Your task to perform on an android device: turn off smart reply in the gmail app Image 0: 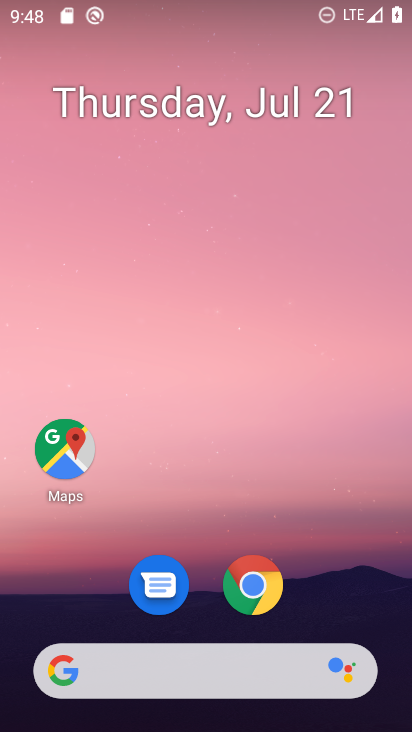
Step 0: drag from (345, 592) to (371, 51)
Your task to perform on an android device: turn off smart reply in the gmail app Image 1: 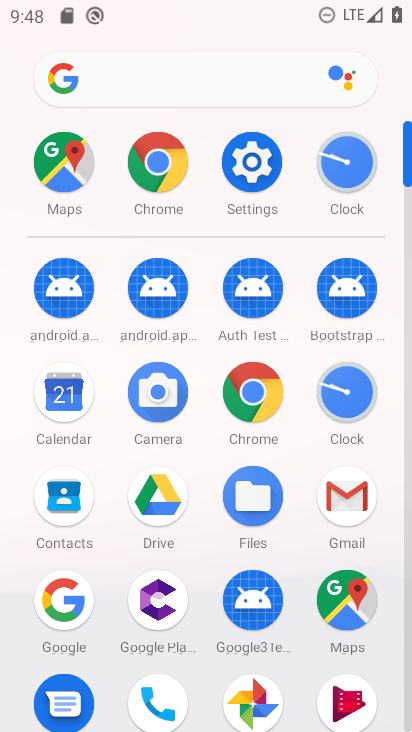
Step 1: click (343, 496)
Your task to perform on an android device: turn off smart reply in the gmail app Image 2: 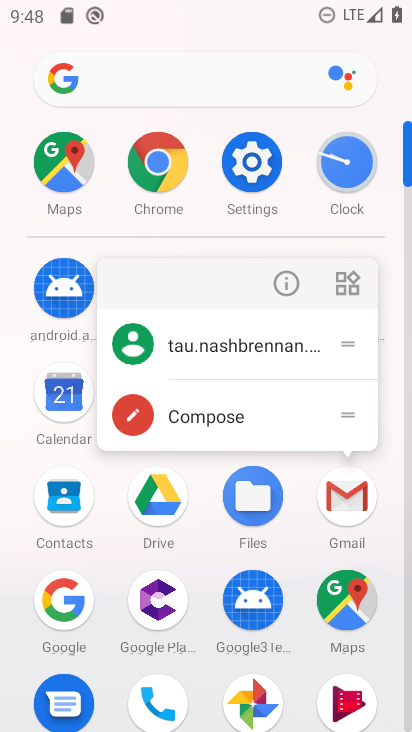
Step 2: click (343, 496)
Your task to perform on an android device: turn off smart reply in the gmail app Image 3: 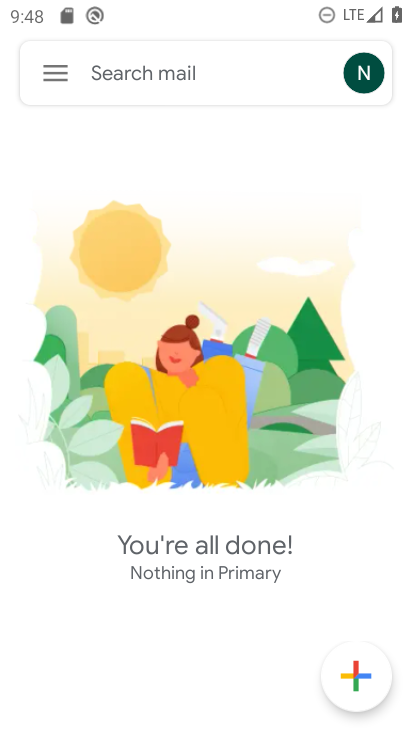
Step 3: click (59, 72)
Your task to perform on an android device: turn off smart reply in the gmail app Image 4: 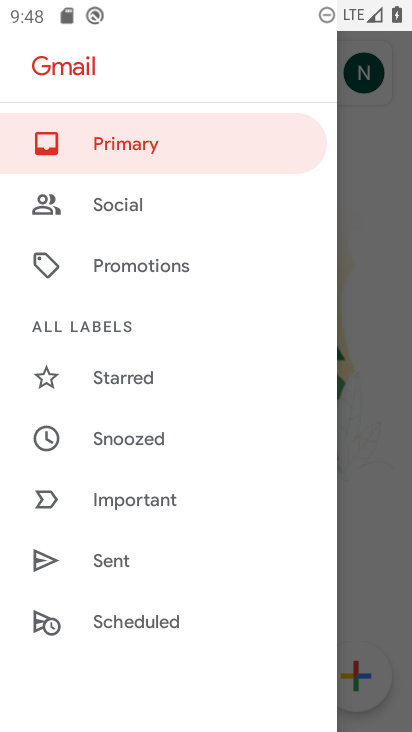
Step 4: drag from (177, 569) to (241, 49)
Your task to perform on an android device: turn off smart reply in the gmail app Image 5: 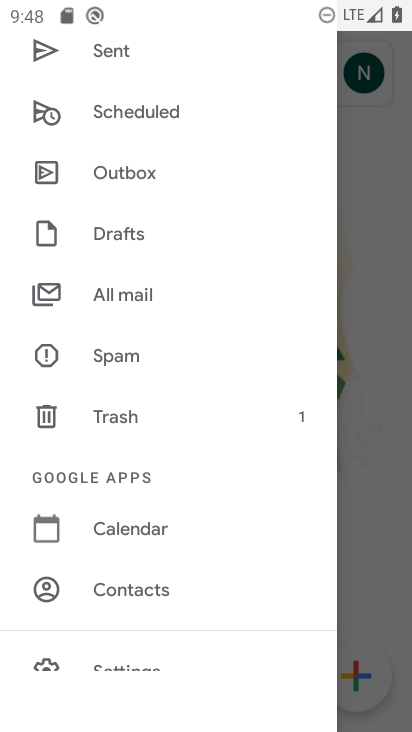
Step 5: drag from (194, 545) to (244, 281)
Your task to perform on an android device: turn off smart reply in the gmail app Image 6: 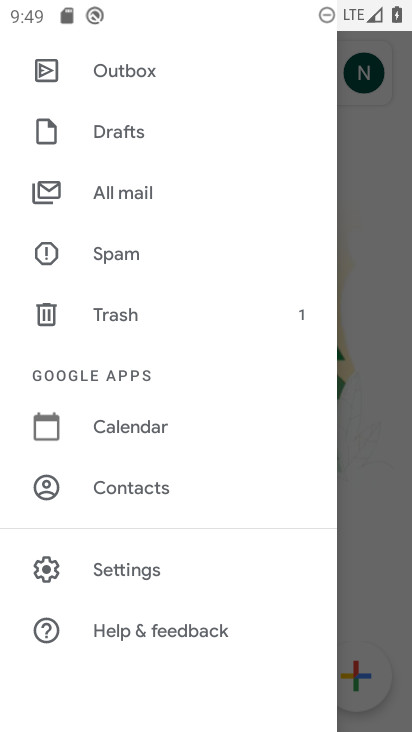
Step 6: click (142, 575)
Your task to perform on an android device: turn off smart reply in the gmail app Image 7: 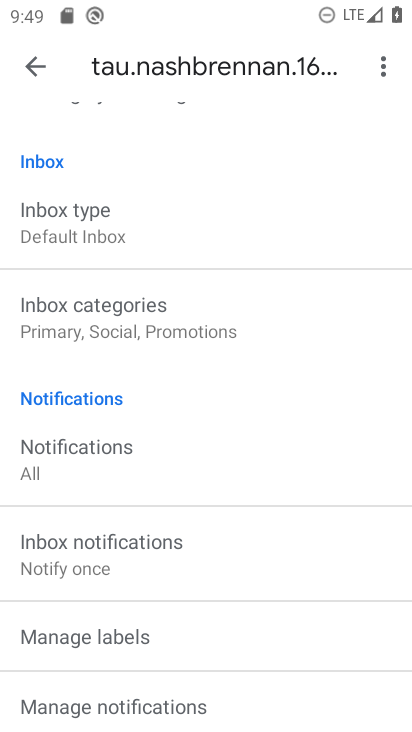
Step 7: task complete